Your task to perform on an android device: choose inbox layout in the gmail app Image 0: 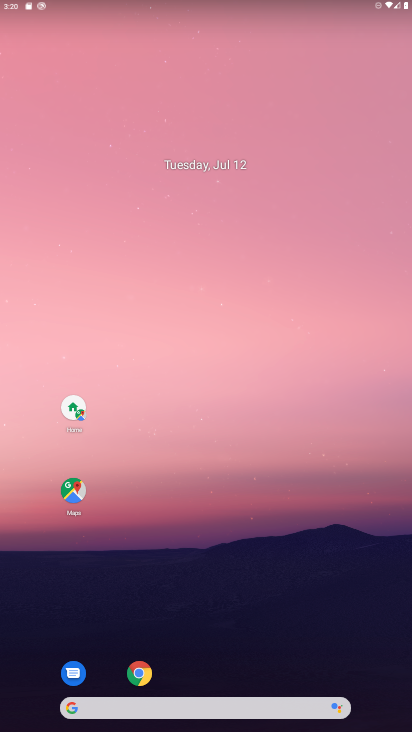
Step 0: drag from (280, 611) to (213, 232)
Your task to perform on an android device: choose inbox layout in the gmail app Image 1: 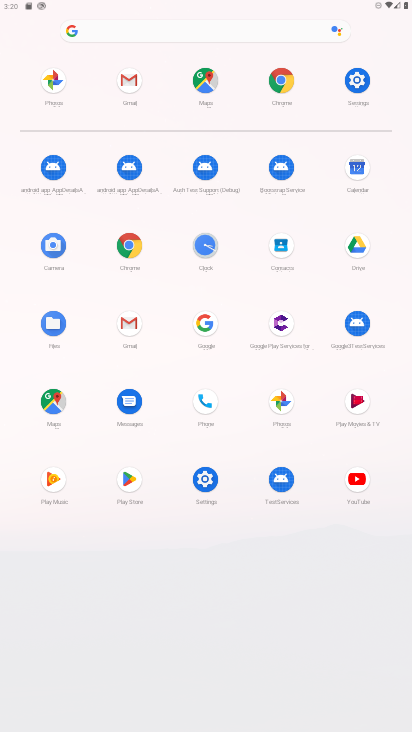
Step 1: click (136, 72)
Your task to perform on an android device: choose inbox layout in the gmail app Image 2: 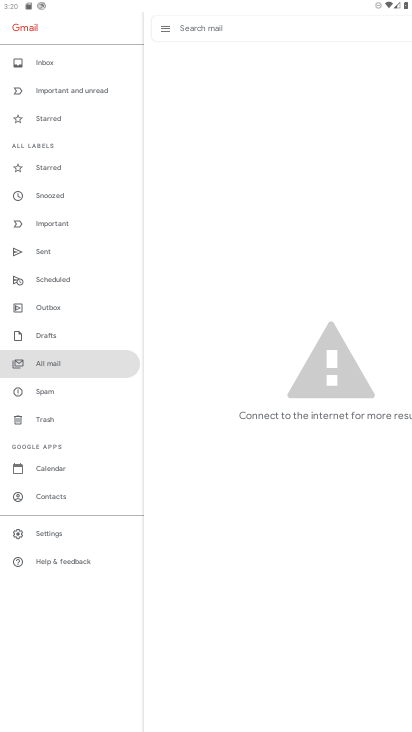
Step 2: click (49, 536)
Your task to perform on an android device: choose inbox layout in the gmail app Image 3: 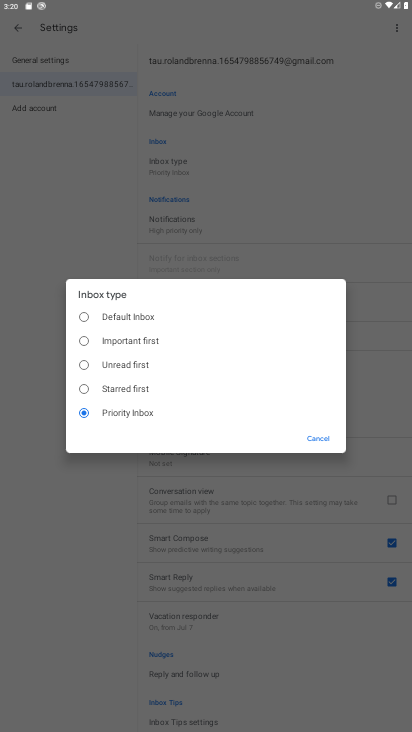
Step 3: click (115, 179)
Your task to perform on an android device: choose inbox layout in the gmail app Image 4: 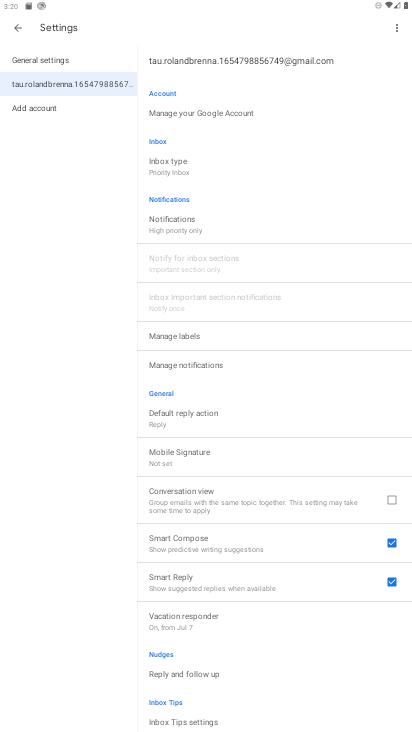
Step 4: click (190, 157)
Your task to perform on an android device: choose inbox layout in the gmail app Image 5: 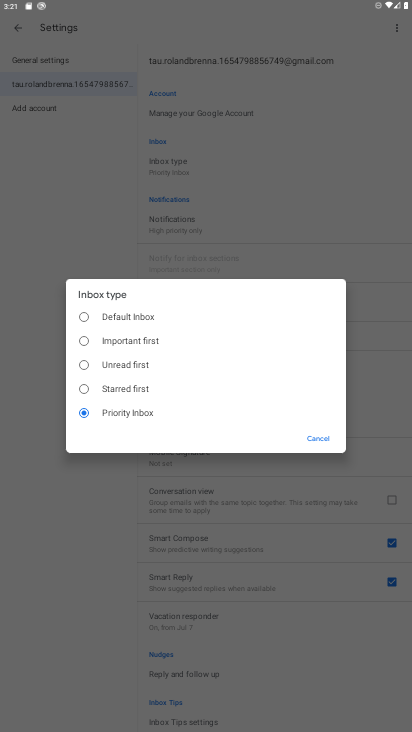
Step 5: click (129, 319)
Your task to perform on an android device: choose inbox layout in the gmail app Image 6: 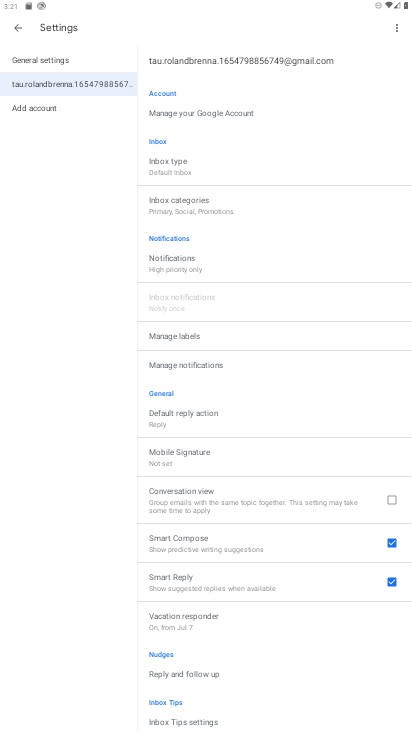
Step 6: task complete